Your task to perform on an android device: Open Reddit.com Image 0: 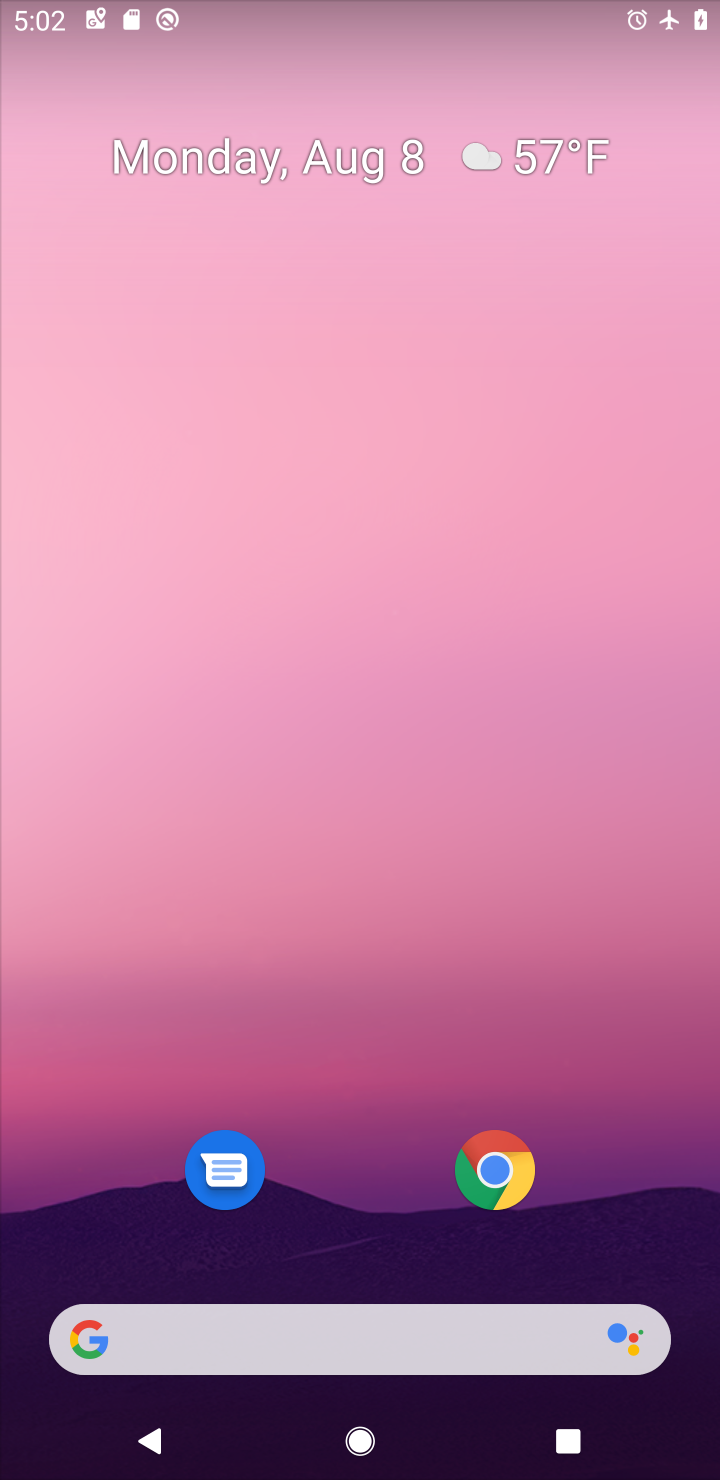
Step 0: press home button
Your task to perform on an android device: Open Reddit.com Image 1: 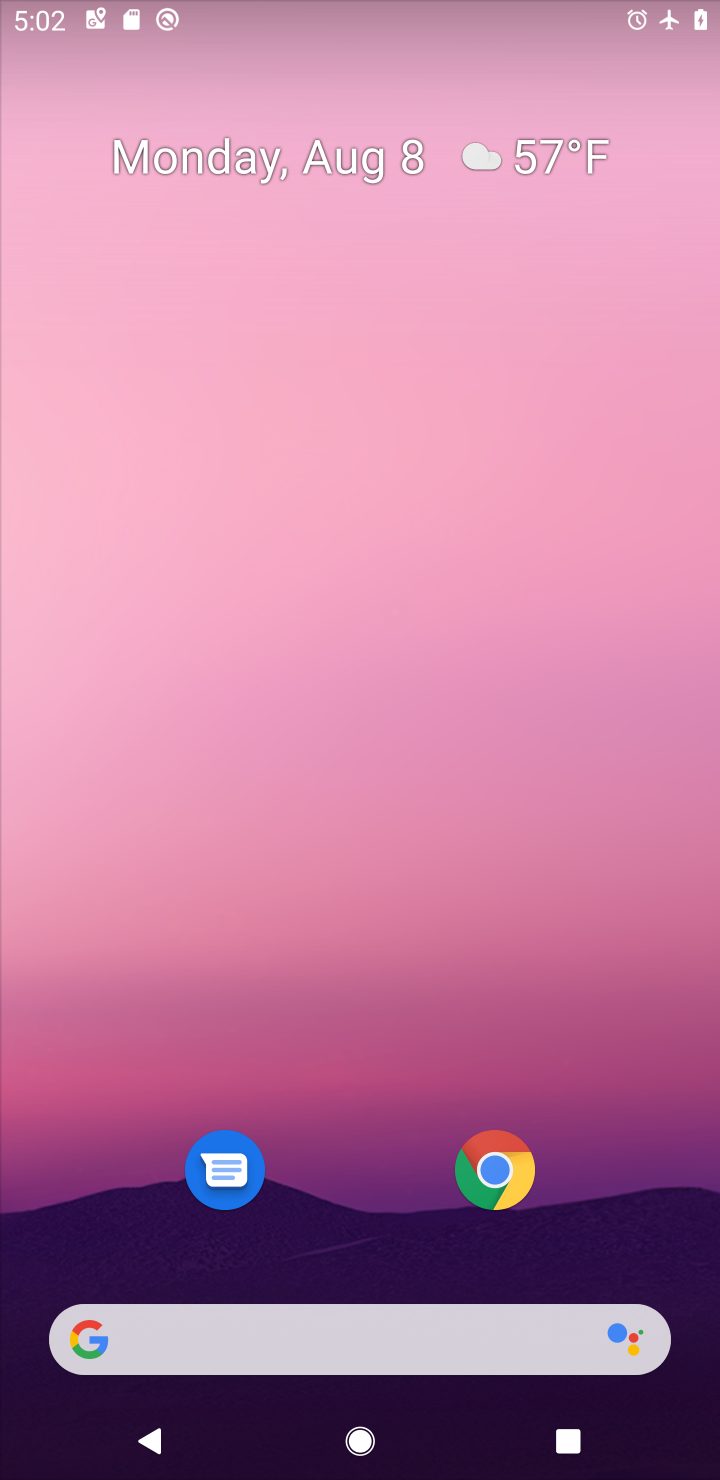
Step 1: press home button
Your task to perform on an android device: Open Reddit.com Image 2: 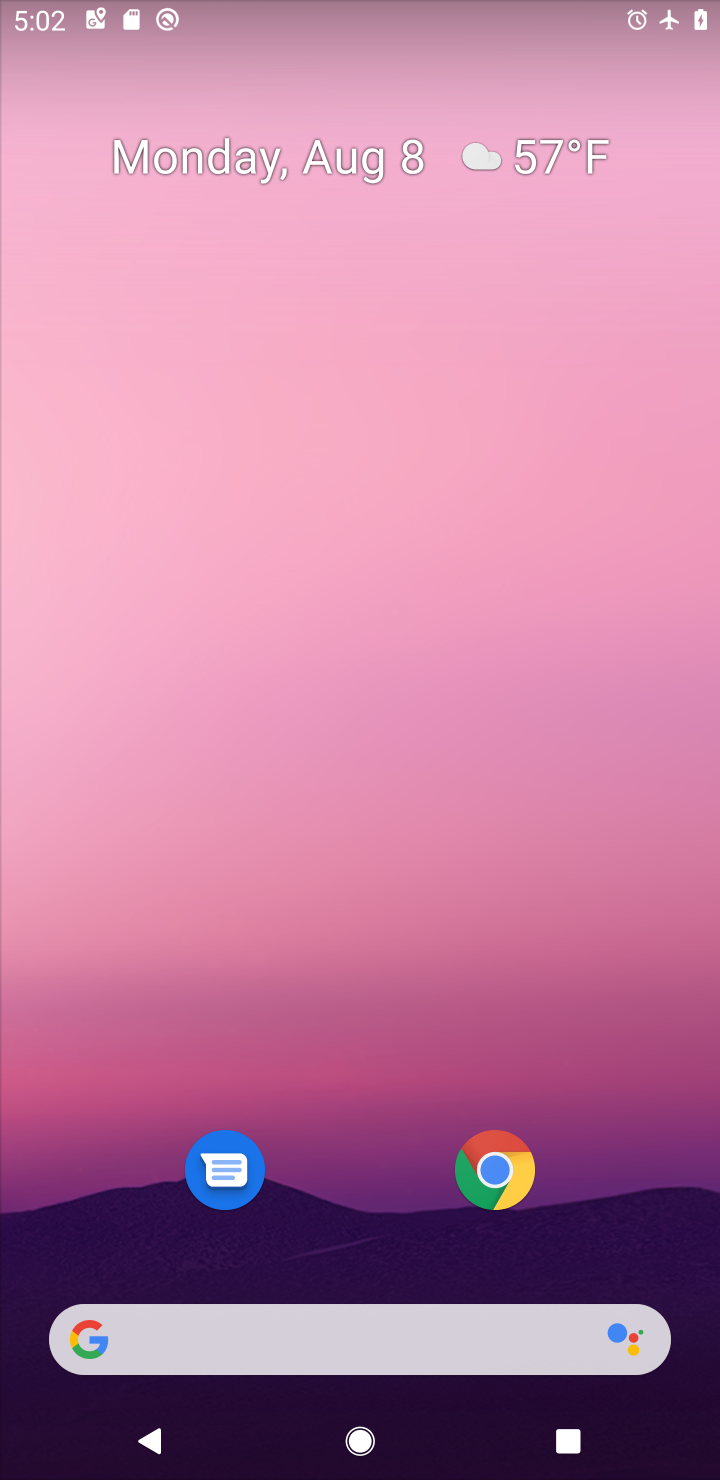
Step 2: click (475, 1155)
Your task to perform on an android device: Open Reddit.com Image 3: 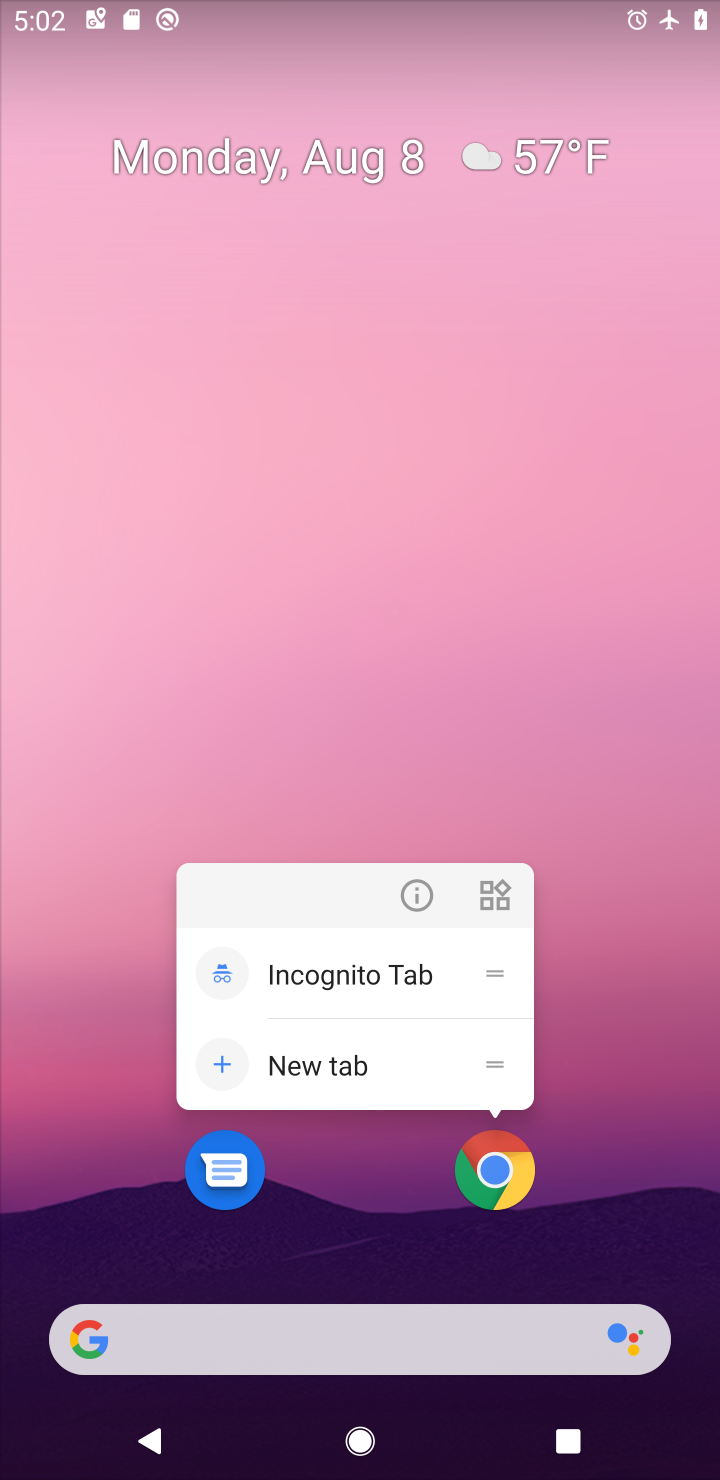
Step 3: click (475, 1155)
Your task to perform on an android device: Open Reddit.com Image 4: 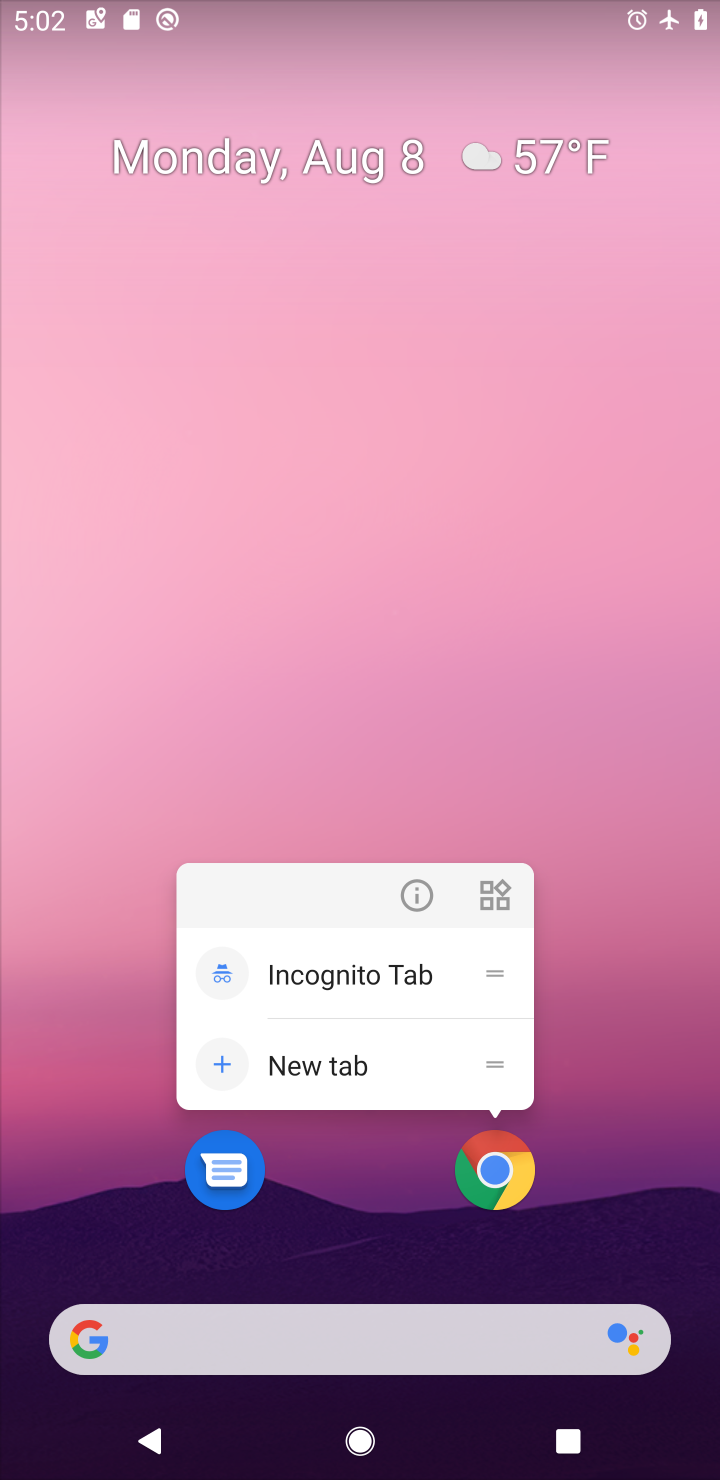
Step 4: click (475, 1155)
Your task to perform on an android device: Open Reddit.com Image 5: 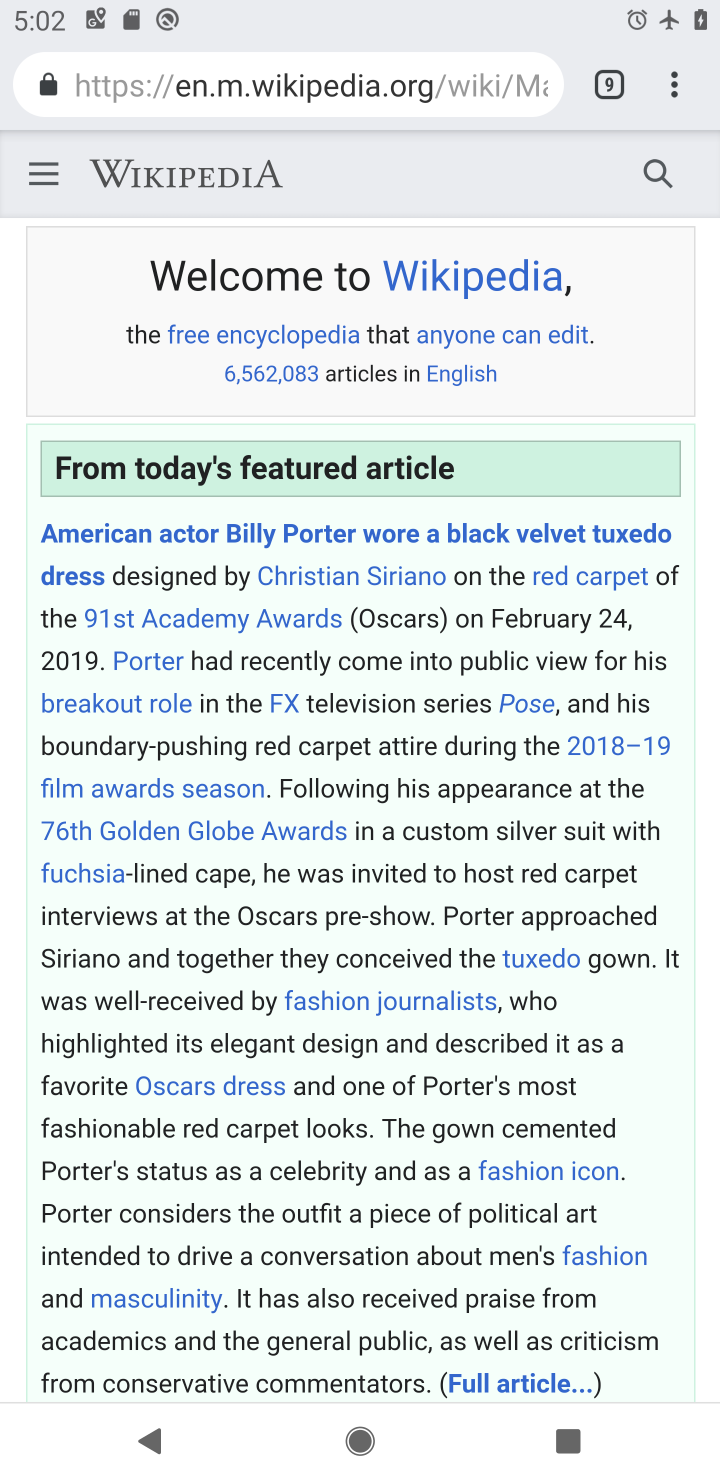
Step 5: click (594, 79)
Your task to perform on an android device: Open Reddit.com Image 6: 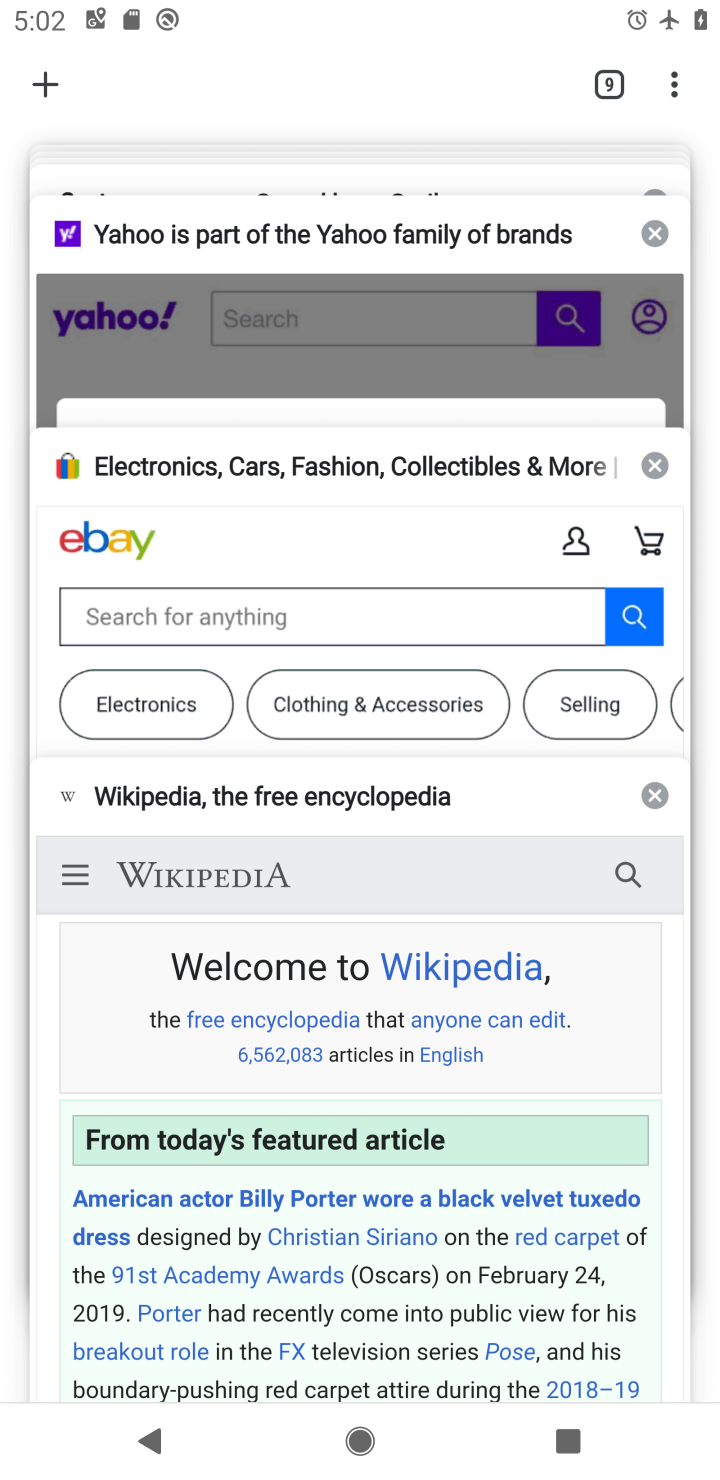
Step 6: click (32, 74)
Your task to perform on an android device: Open Reddit.com Image 7: 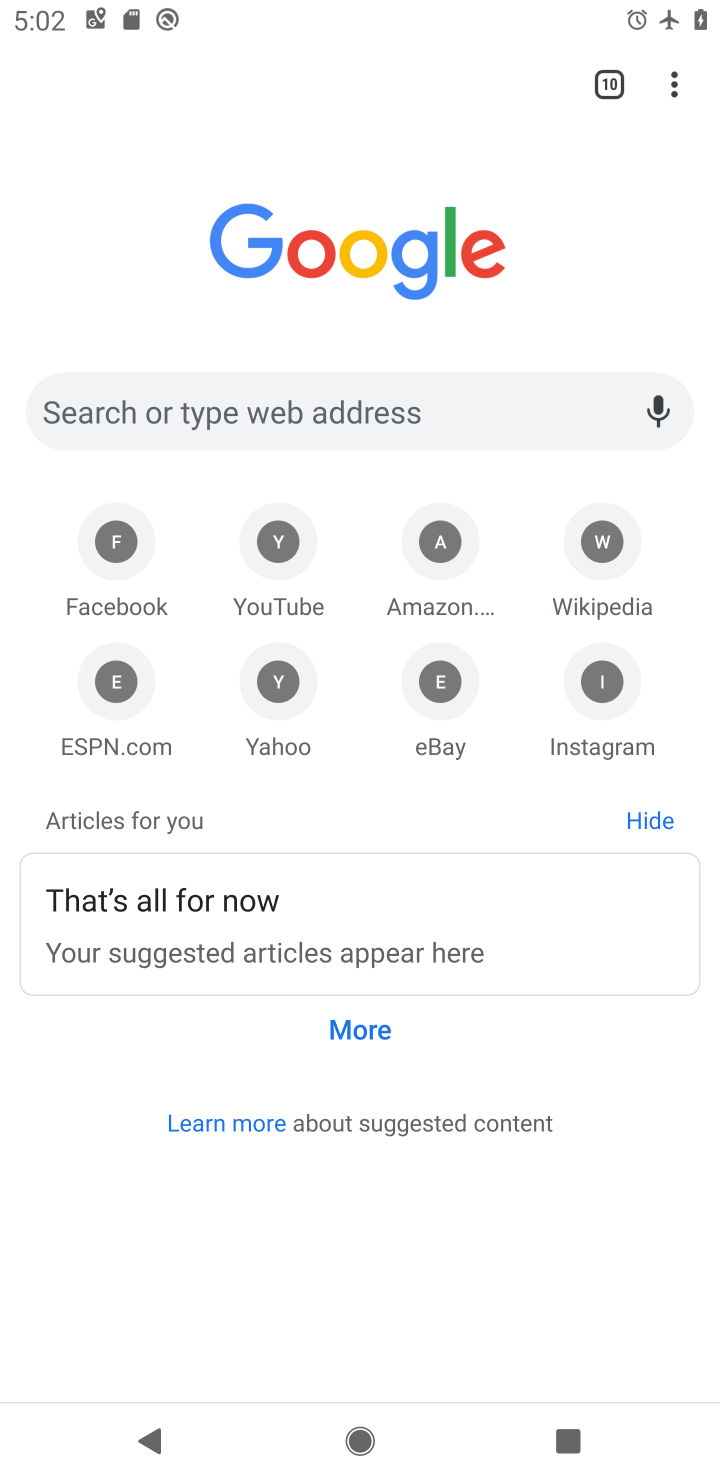
Step 7: click (247, 419)
Your task to perform on an android device: Open Reddit.com Image 8: 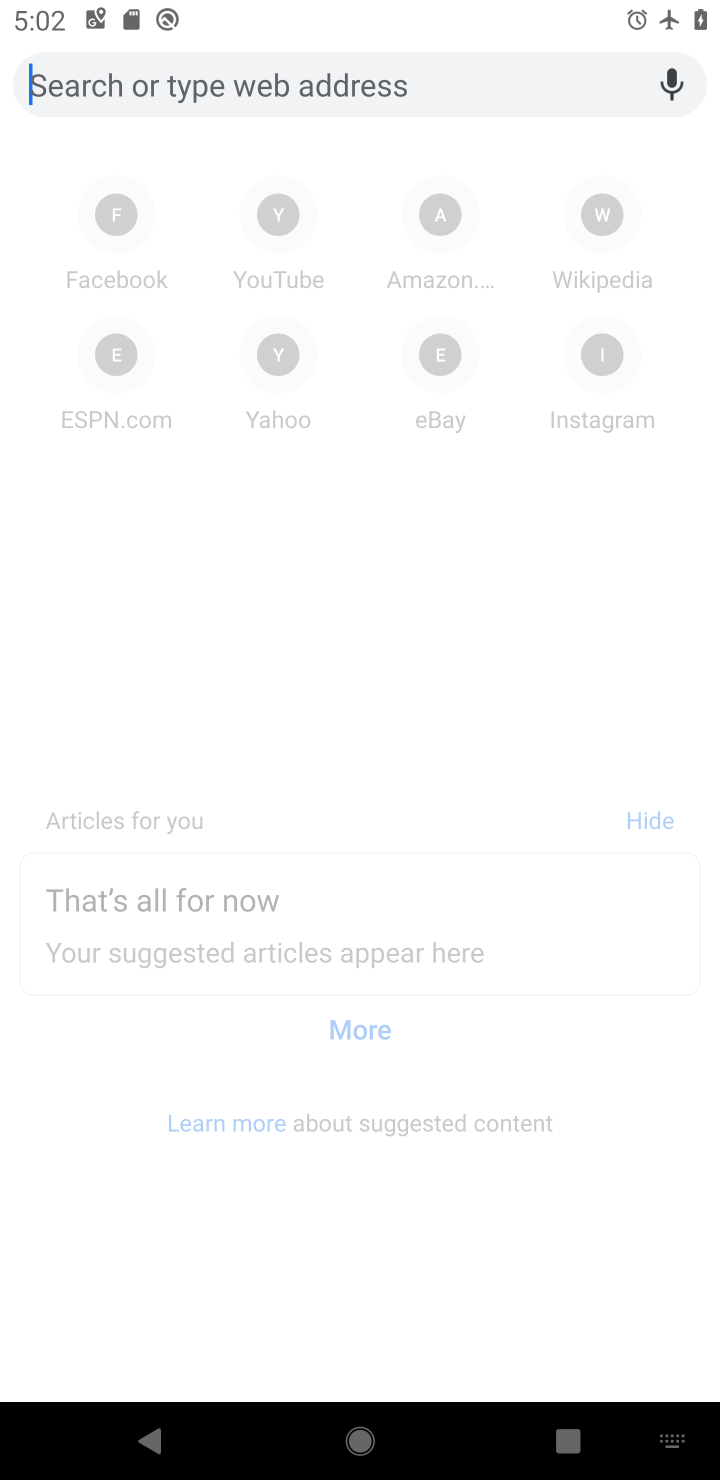
Step 8: type "Reddit.com"
Your task to perform on an android device: Open Reddit.com Image 9: 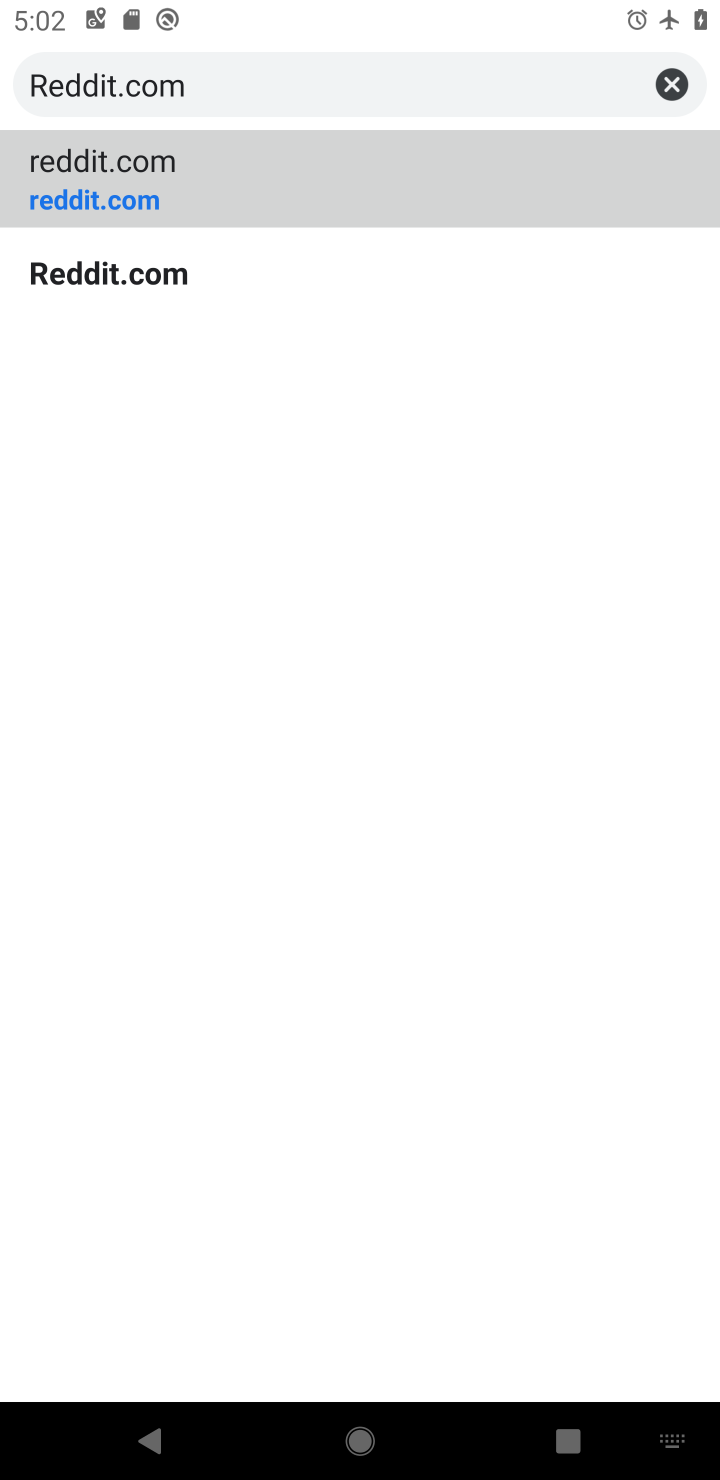
Step 9: click (176, 229)
Your task to perform on an android device: Open Reddit.com Image 10: 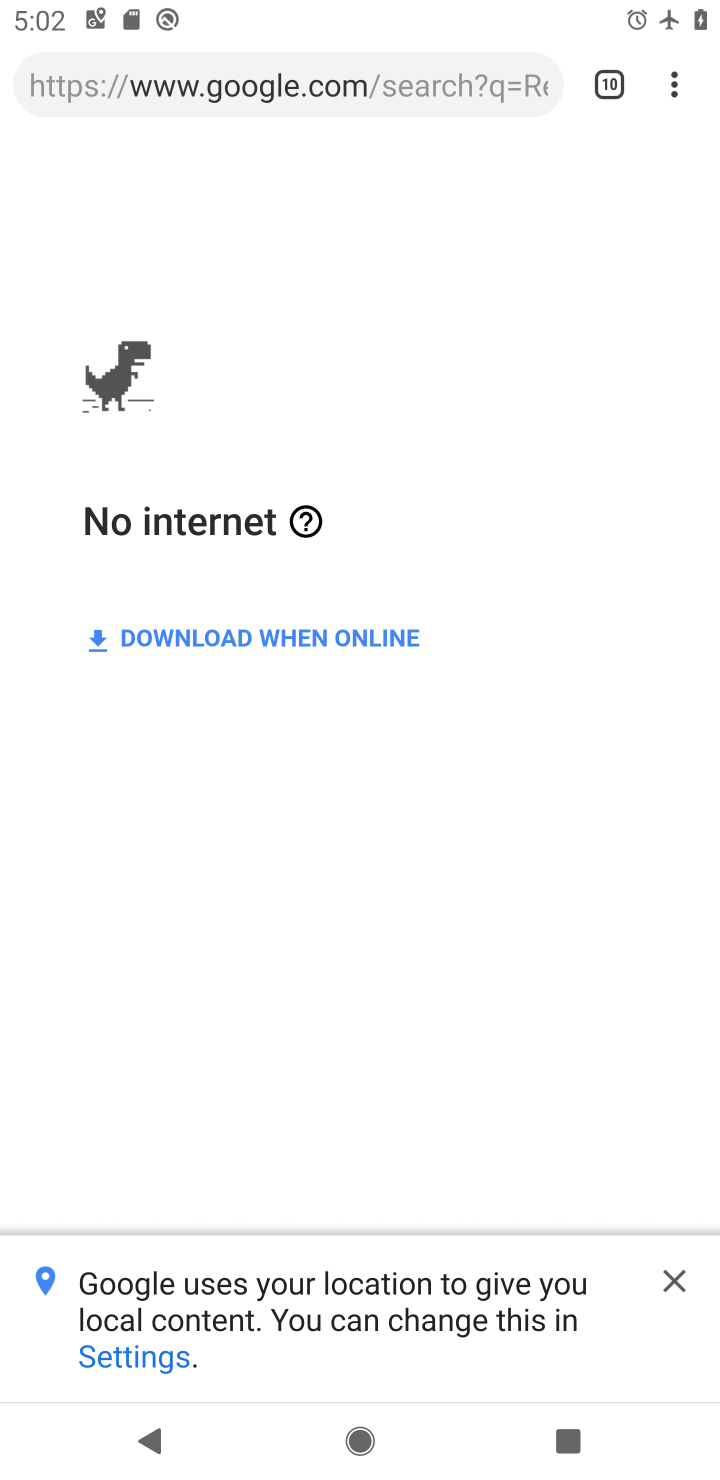
Step 10: task complete